Your task to perform on an android device: What's on my calendar tomorrow? Image 0: 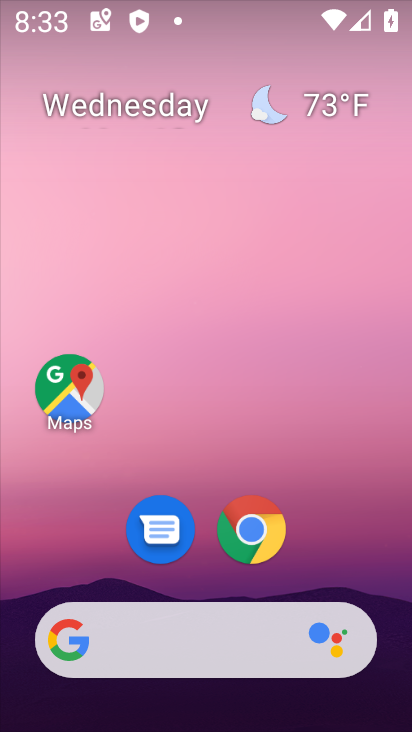
Step 0: drag from (378, 571) to (388, 340)
Your task to perform on an android device: What's on my calendar tomorrow? Image 1: 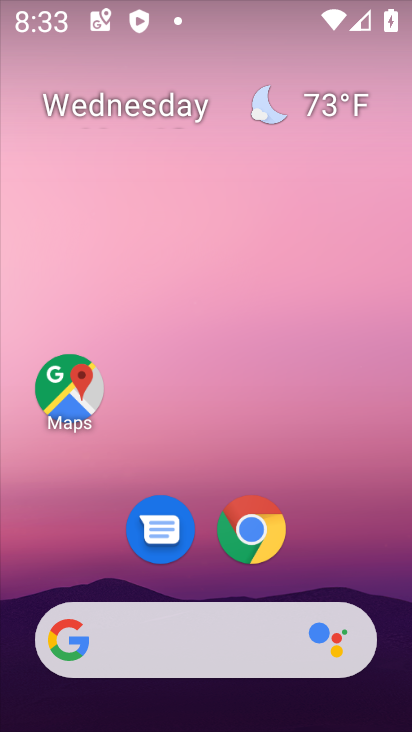
Step 1: drag from (363, 560) to (357, 233)
Your task to perform on an android device: What's on my calendar tomorrow? Image 2: 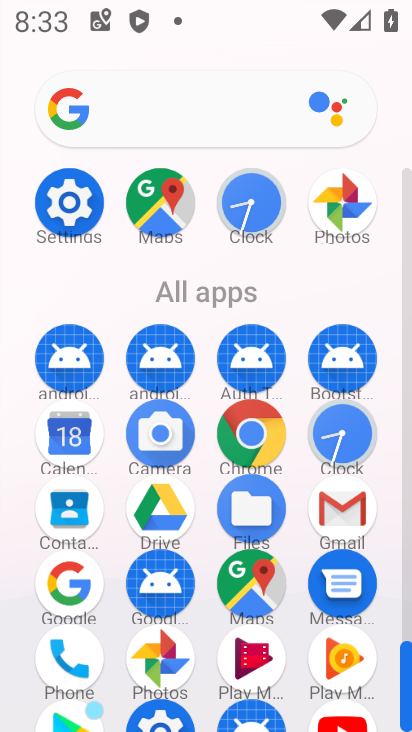
Step 2: click (90, 456)
Your task to perform on an android device: What's on my calendar tomorrow? Image 3: 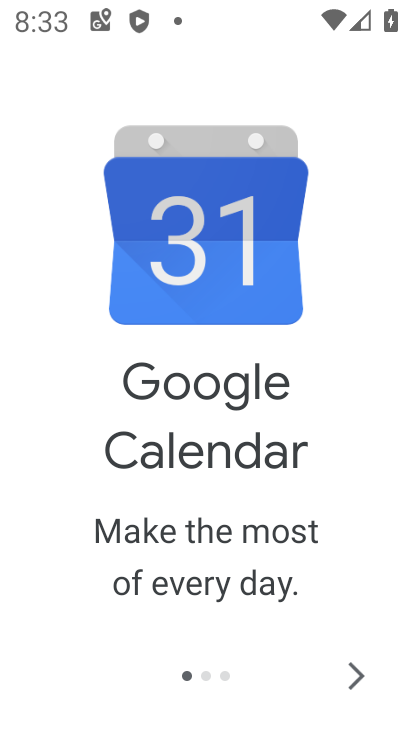
Step 3: click (351, 674)
Your task to perform on an android device: What's on my calendar tomorrow? Image 4: 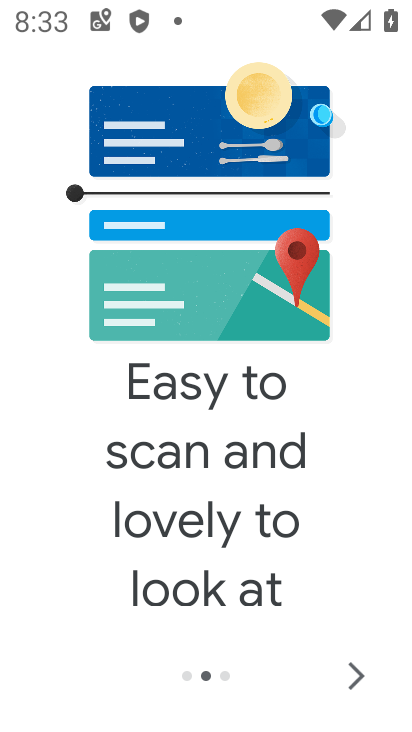
Step 4: click (351, 674)
Your task to perform on an android device: What's on my calendar tomorrow? Image 5: 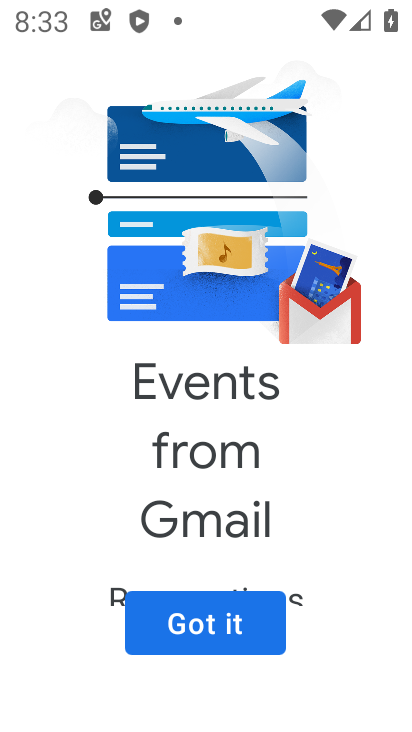
Step 5: click (226, 628)
Your task to perform on an android device: What's on my calendar tomorrow? Image 6: 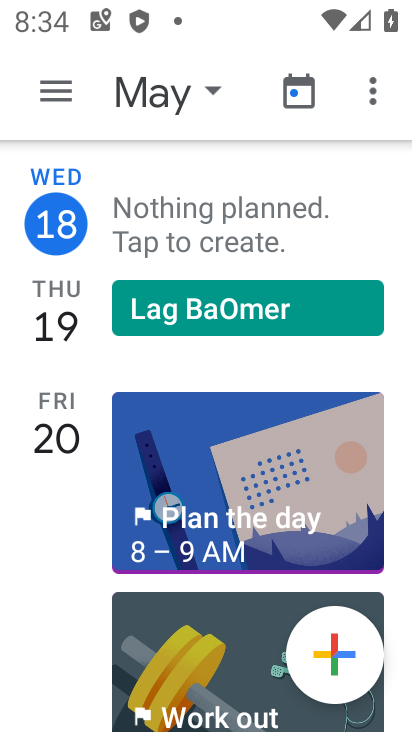
Step 6: click (240, 494)
Your task to perform on an android device: What's on my calendar tomorrow? Image 7: 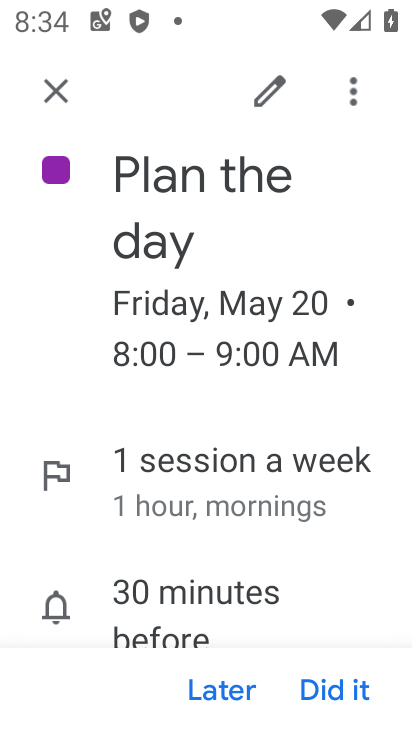
Step 7: task complete